Your task to perform on an android device: change the clock display to analog Image 0: 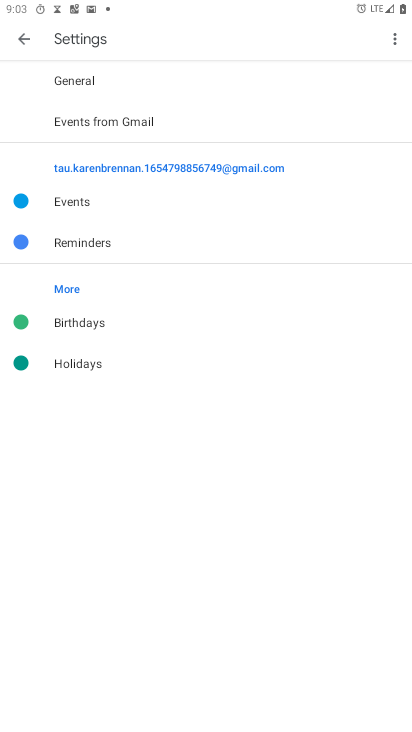
Step 0: press home button
Your task to perform on an android device: change the clock display to analog Image 1: 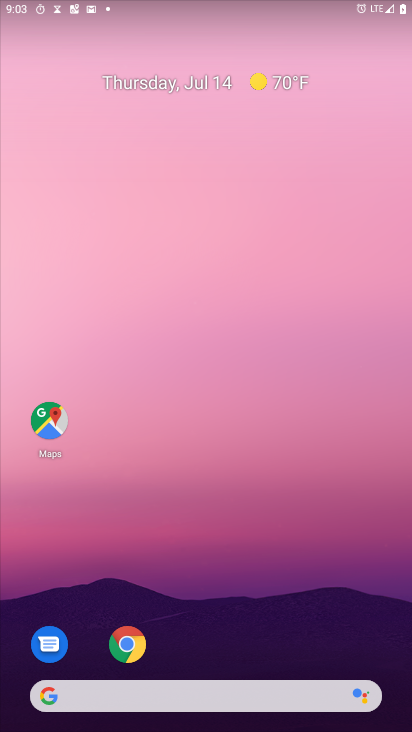
Step 1: drag from (212, 692) to (283, 165)
Your task to perform on an android device: change the clock display to analog Image 2: 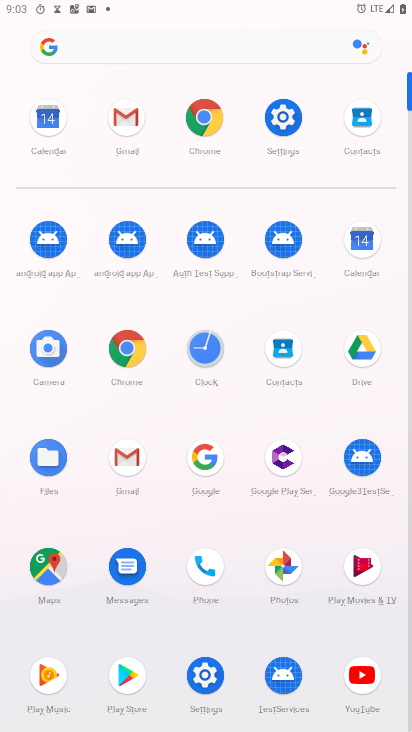
Step 2: click (208, 352)
Your task to perform on an android device: change the clock display to analog Image 3: 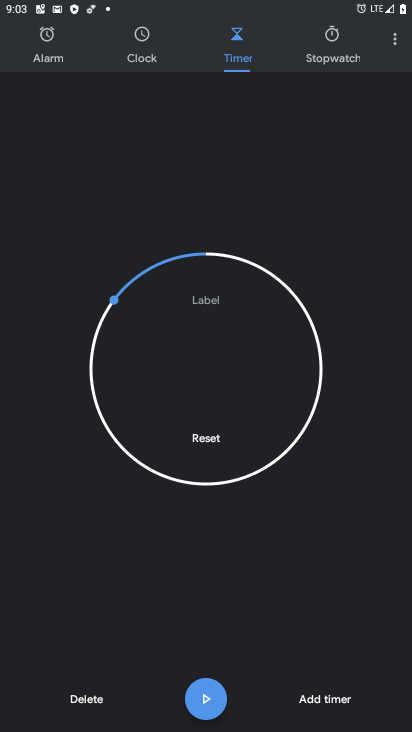
Step 3: click (393, 38)
Your task to perform on an android device: change the clock display to analog Image 4: 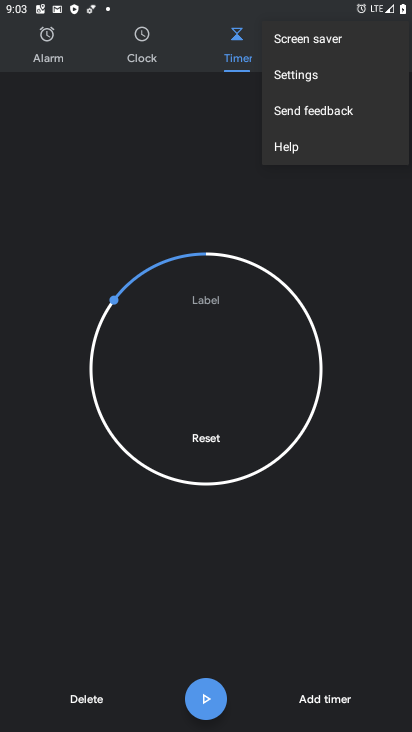
Step 4: click (302, 82)
Your task to perform on an android device: change the clock display to analog Image 5: 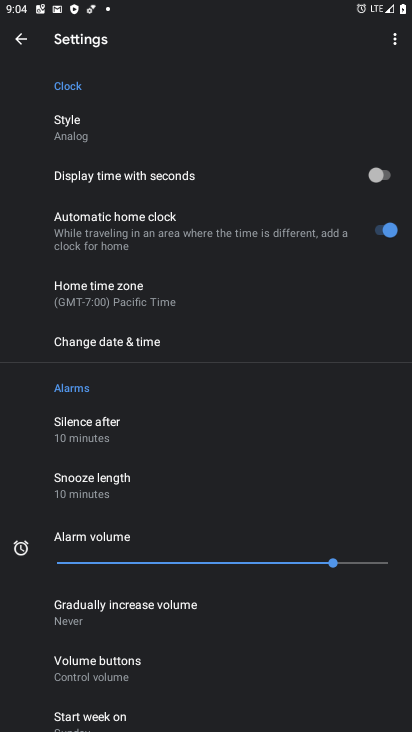
Step 5: task complete